Your task to perform on an android device: Go to location settings Image 0: 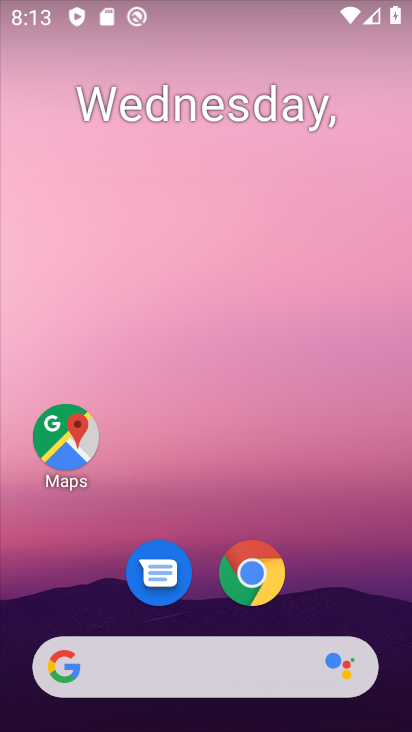
Step 0: drag from (278, 654) to (262, 111)
Your task to perform on an android device: Go to location settings Image 1: 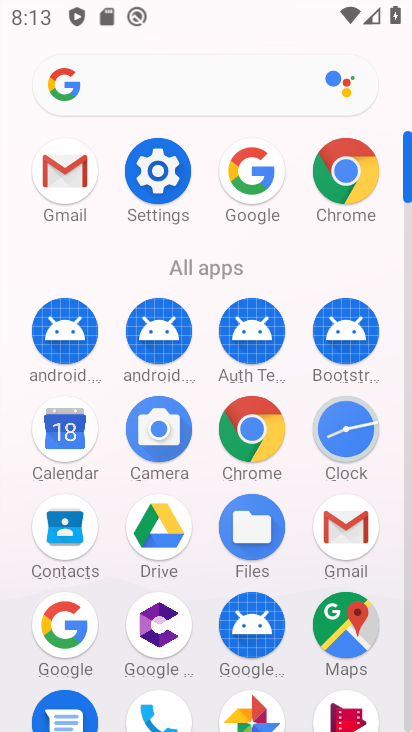
Step 1: click (182, 196)
Your task to perform on an android device: Go to location settings Image 2: 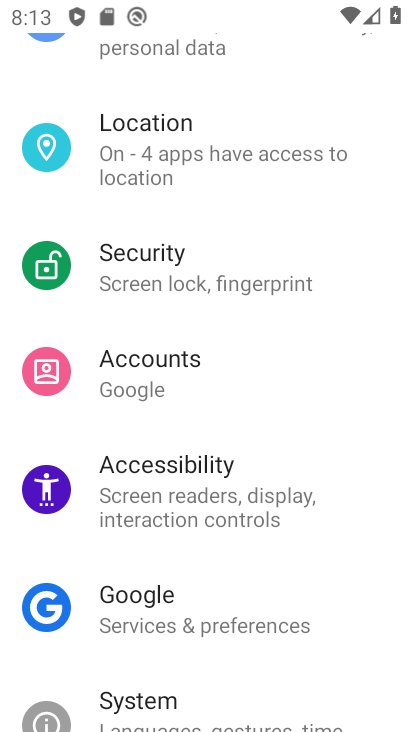
Step 2: click (226, 162)
Your task to perform on an android device: Go to location settings Image 3: 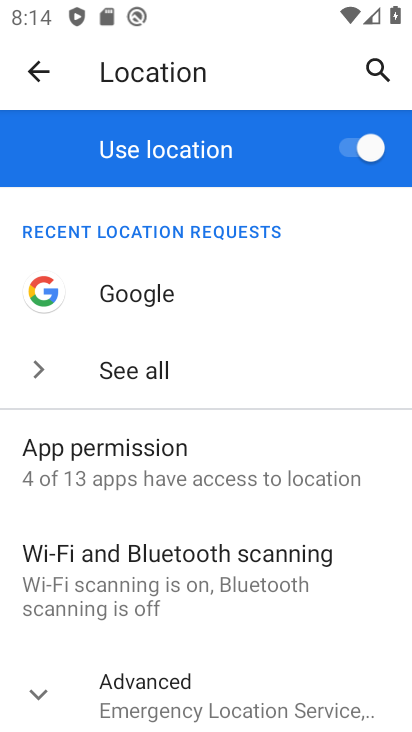
Step 3: task complete